Your task to perform on an android device: Go to Android settings Image 0: 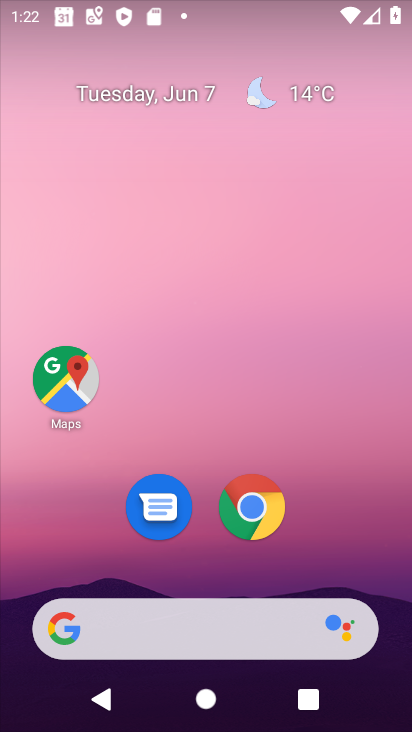
Step 0: drag from (392, 592) to (291, 43)
Your task to perform on an android device: Go to Android settings Image 1: 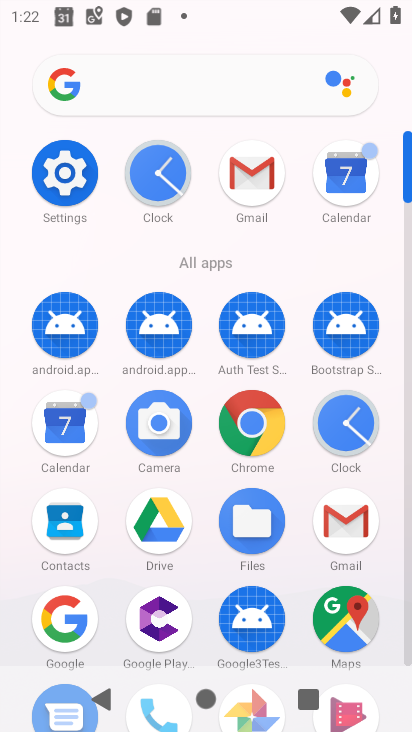
Step 1: click (408, 644)
Your task to perform on an android device: Go to Android settings Image 2: 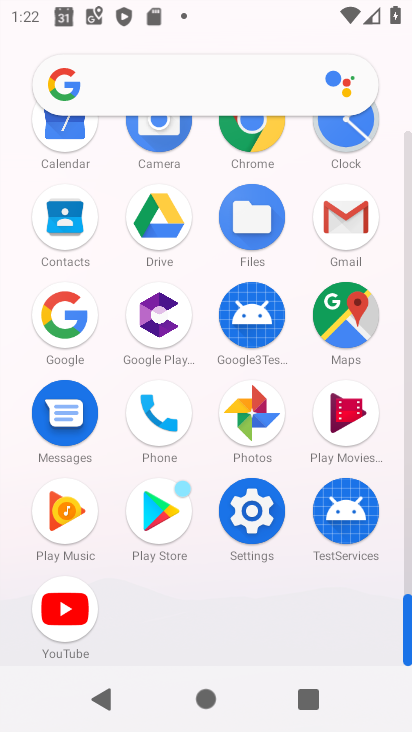
Step 2: click (255, 510)
Your task to perform on an android device: Go to Android settings Image 3: 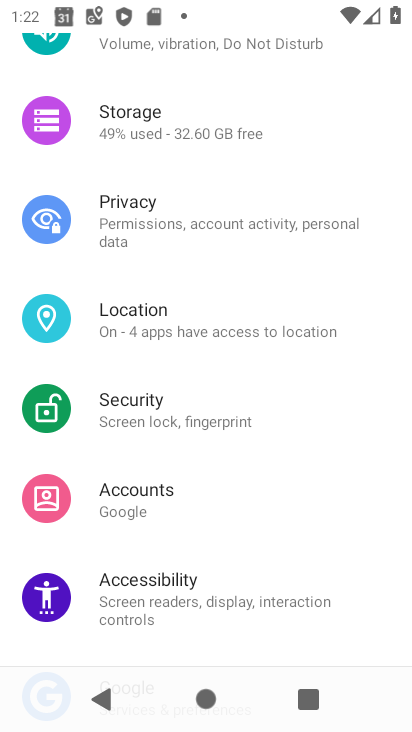
Step 3: drag from (289, 587) to (263, 94)
Your task to perform on an android device: Go to Android settings Image 4: 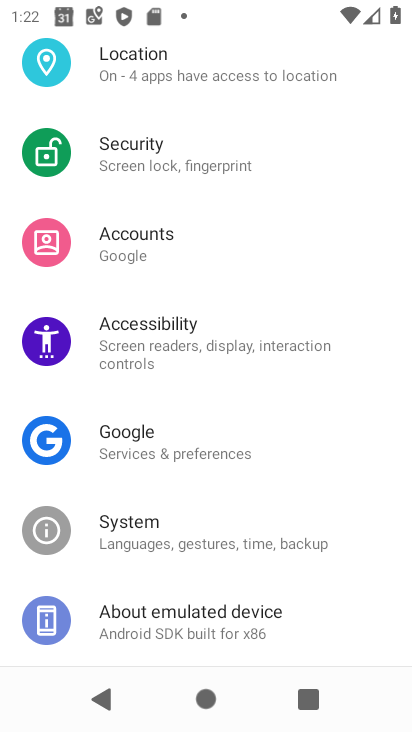
Step 4: click (144, 615)
Your task to perform on an android device: Go to Android settings Image 5: 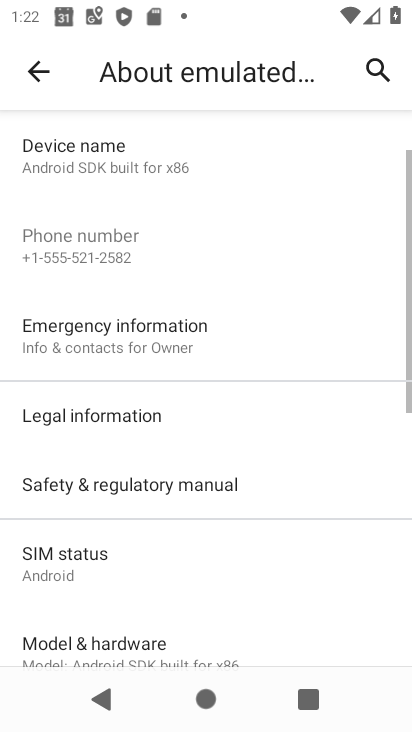
Step 5: task complete